Your task to perform on an android device: Open the calendar app, open the side menu, and click the "Day" option Image 0: 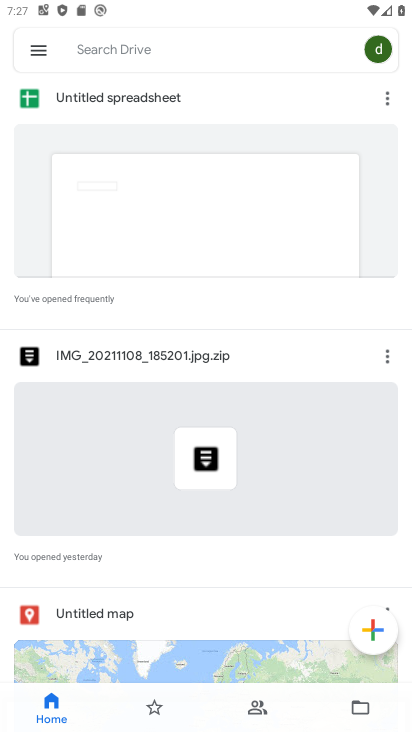
Step 0: drag from (302, 630) to (321, 88)
Your task to perform on an android device: Open the calendar app, open the side menu, and click the "Day" option Image 1: 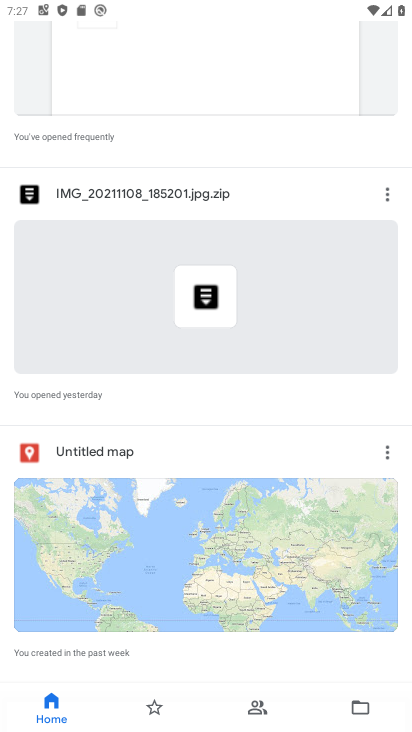
Step 1: press home button
Your task to perform on an android device: Open the calendar app, open the side menu, and click the "Day" option Image 2: 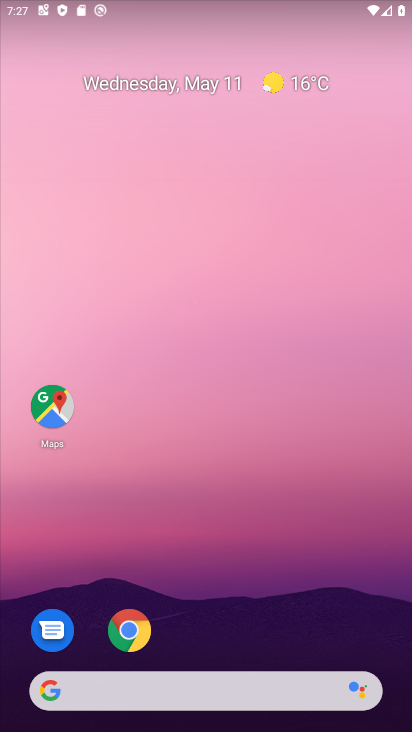
Step 2: drag from (319, 630) to (329, 147)
Your task to perform on an android device: Open the calendar app, open the side menu, and click the "Day" option Image 3: 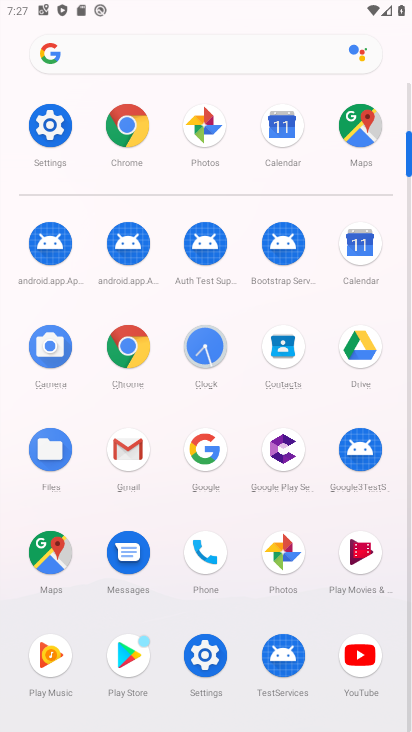
Step 3: click (358, 240)
Your task to perform on an android device: Open the calendar app, open the side menu, and click the "Day" option Image 4: 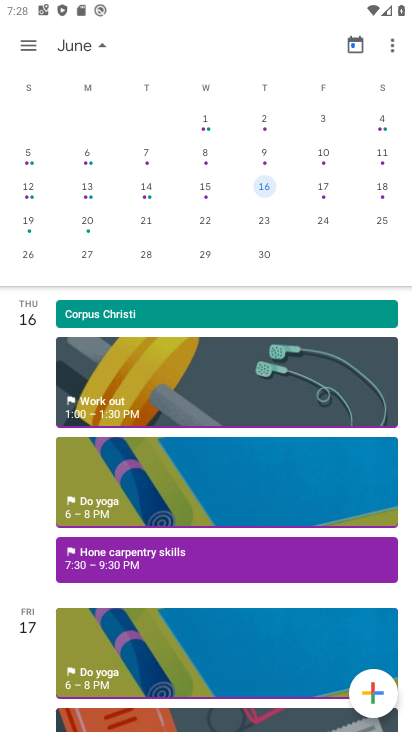
Step 4: click (26, 49)
Your task to perform on an android device: Open the calendar app, open the side menu, and click the "Day" option Image 5: 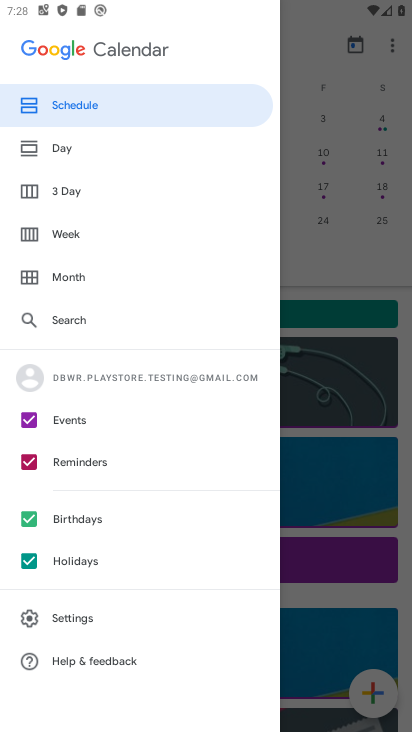
Step 5: click (66, 143)
Your task to perform on an android device: Open the calendar app, open the side menu, and click the "Day" option Image 6: 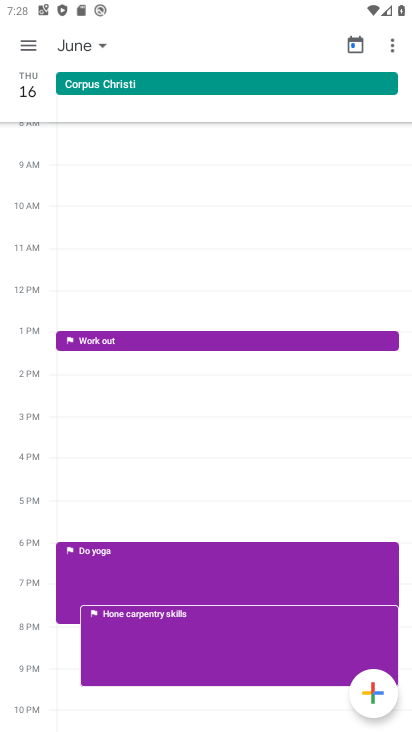
Step 6: click (3, 44)
Your task to perform on an android device: Open the calendar app, open the side menu, and click the "Day" option Image 7: 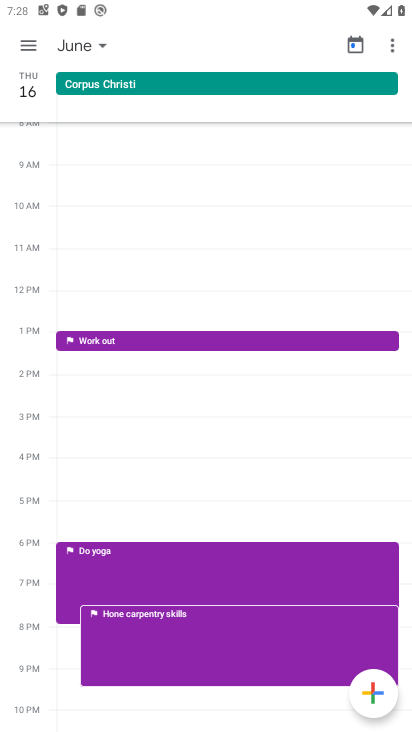
Step 7: click (18, 45)
Your task to perform on an android device: Open the calendar app, open the side menu, and click the "Day" option Image 8: 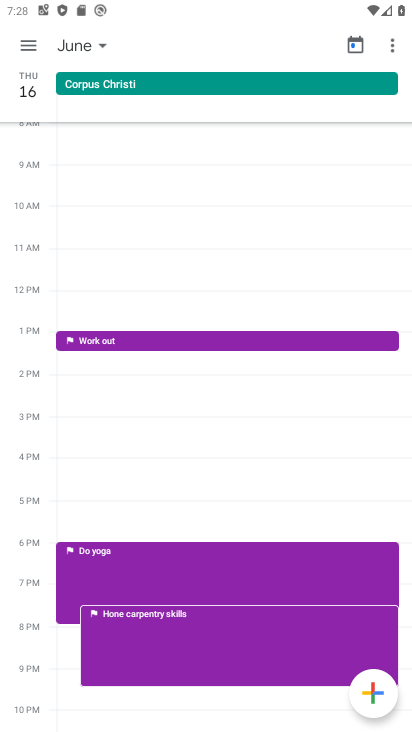
Step 8: click (29, 47)
Your task to perform on an android device: Open the calendar app, open the side menu, and click the "Day" option Image 9: 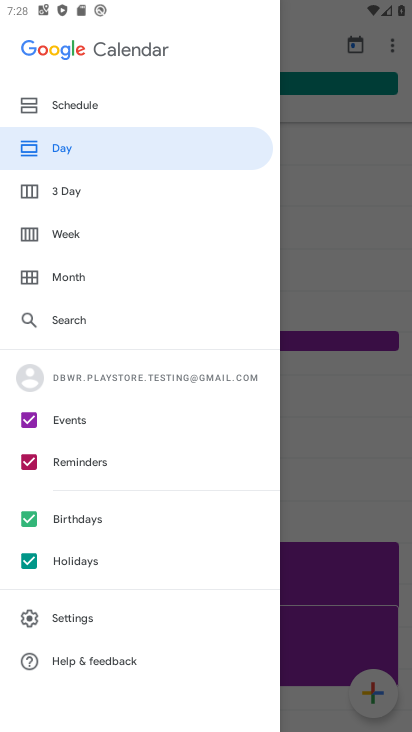
Step 9: click (95, 148)
Your task to perform on an android device: Open the calendar app, open the side menu, and click the "Day" option Image 10: 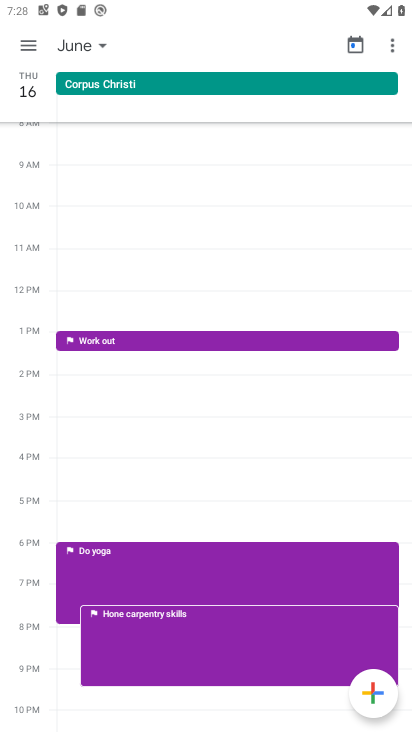
Step 10: task complete